Your task to perform on an android device: Open privacy settings Image 0: 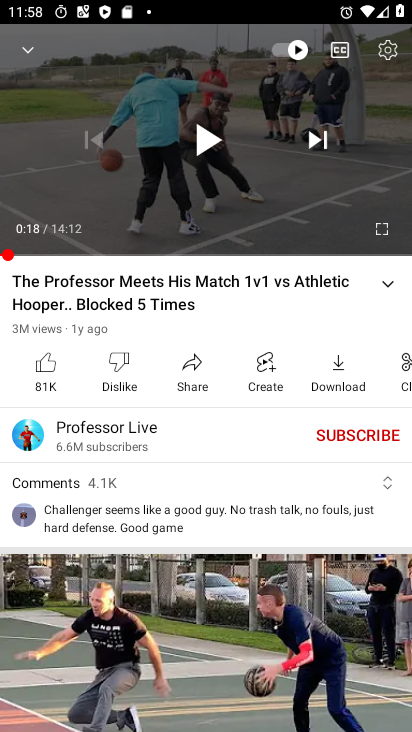
Step 0: press home button
Your task to perform on an android device: Open privacy settings Image 1: 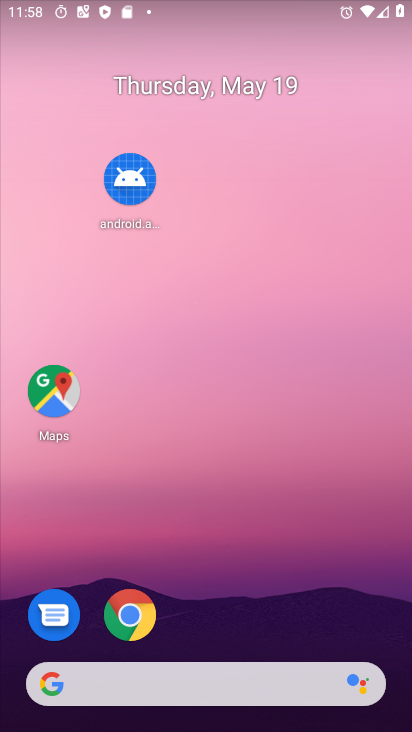
Step 1: drag from (311, 575) to (293, 252)
Your task to perform on an android device: Open privacy settings Image 2: 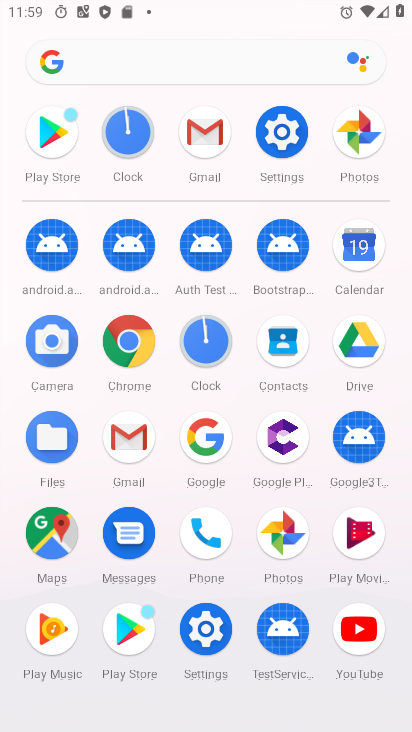
Step 2: click (292, 125)
Your task to perform on an android device: Open privacy settings Image 3: 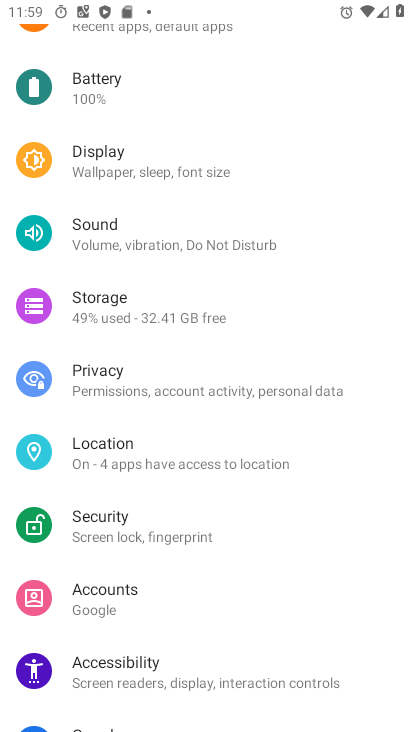
Step 3: click (129, 389)
Your task to perform on an android device: Open privacy settings Image 4: 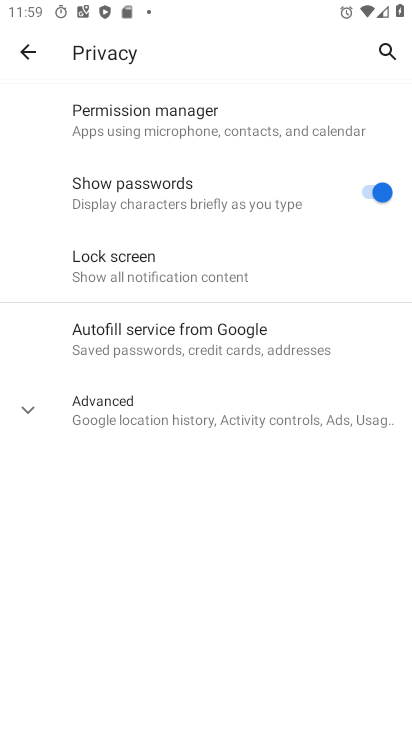
Step 4: task complete